Your task to perform on an android device: check android version Image 0: 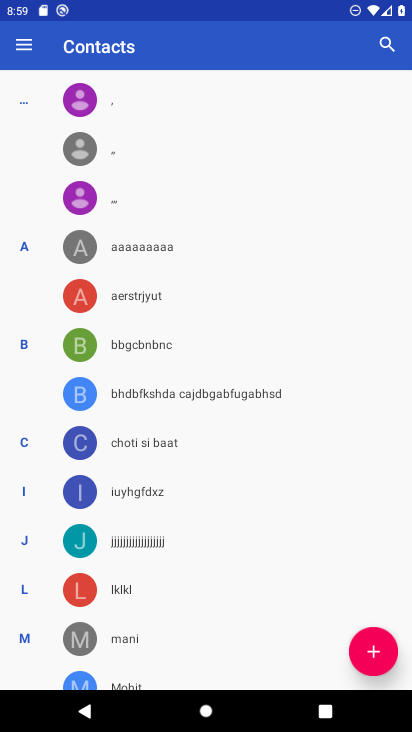
Step 0: press home button
Your task to perform on an android device: check android version Image 1: 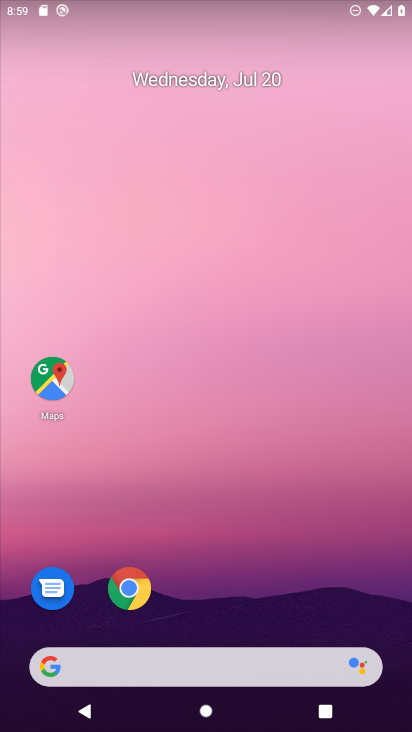
Step 1: drag from (175, 598) to (156, 361)
Your task to perform on an android device: check android version Image 2: 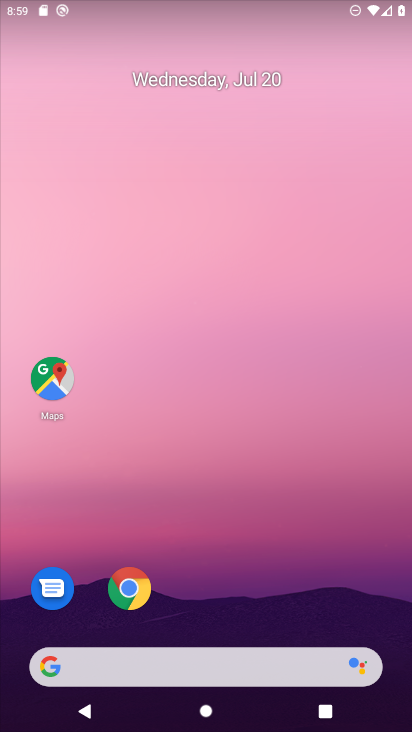
Step 2: drag from (227, 627) to (260, 199)
Your task to perform on an android device: check android version Image 3: 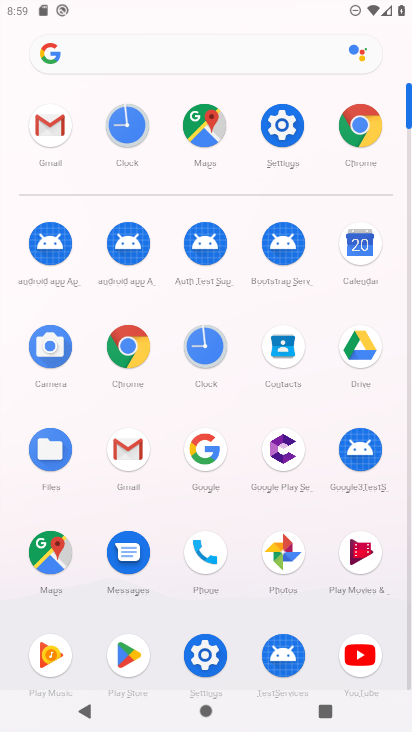
Step 3: drag from (225, 543) to (291, 112)
Your task to perform on an android device: check android version Image 4: 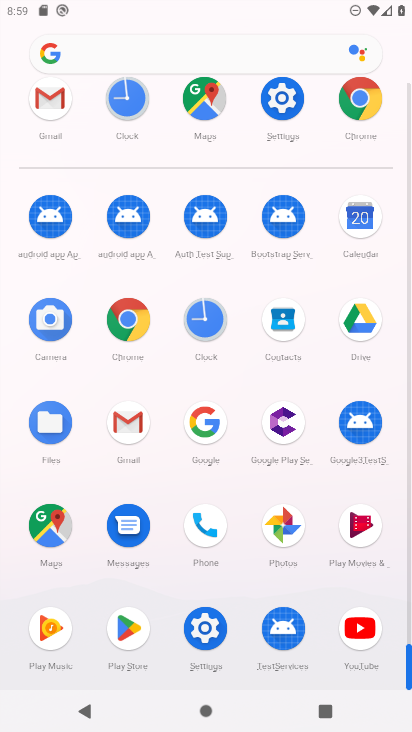
Step 4: click (297, 148)
Your task to perform on an android device: check android version Image 5: 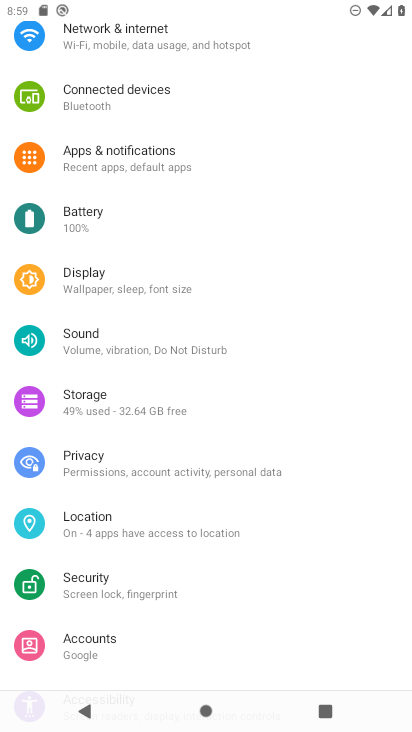
Step 5: drag from (85, 660) to (128, 243)
Your task to perform on an android device: check android version Image 6: 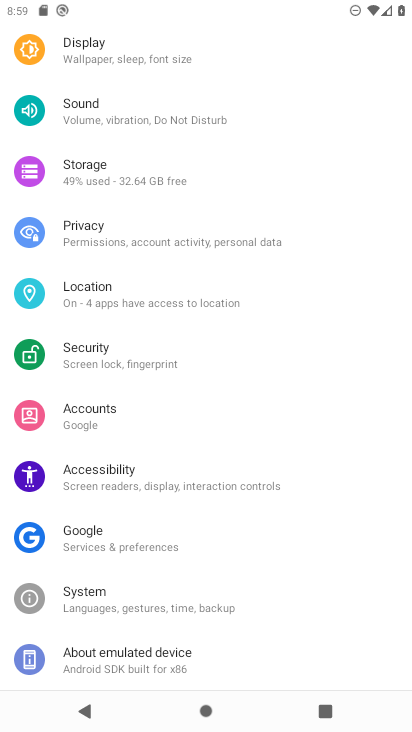
Step 6: drag from (206, 661) to (221, 131)
Your task to perform on an android device: check android version Image 7: 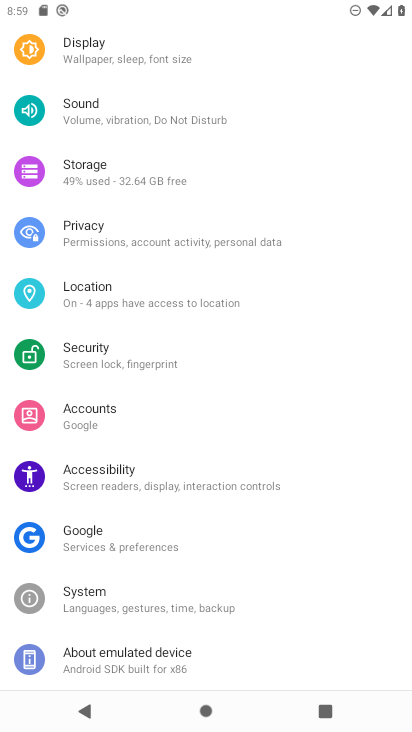
Step 7: click (186, 669)
Your task to perform on an android device: check android version Image 8: 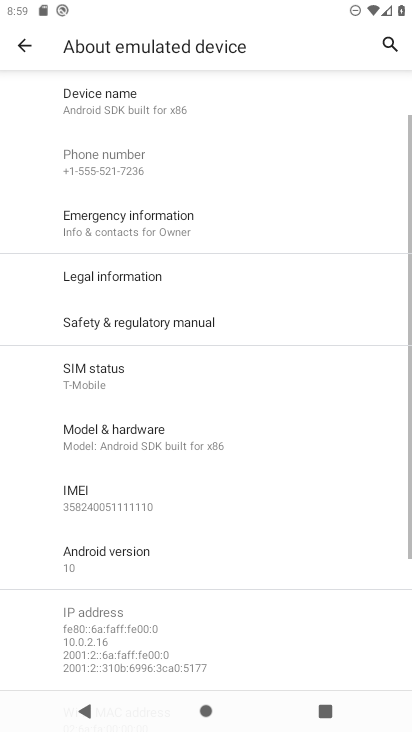
Step 8: click (170, 542)
Your task to perform on an android device: check android version Image 9: 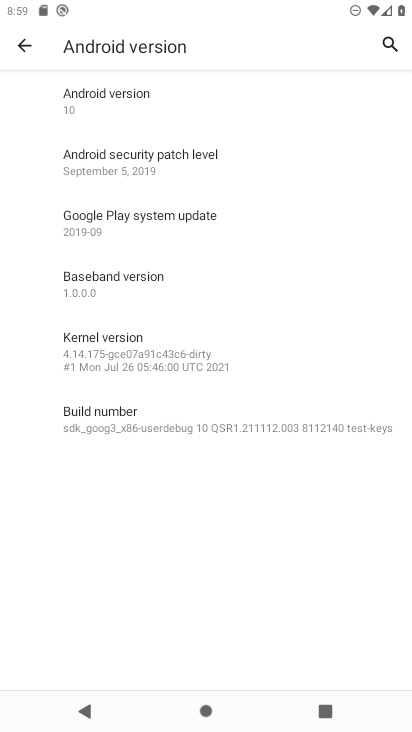
Step 9: task complete